Your task to perform on an android device: add a label to a message in the gmail app Image 0: 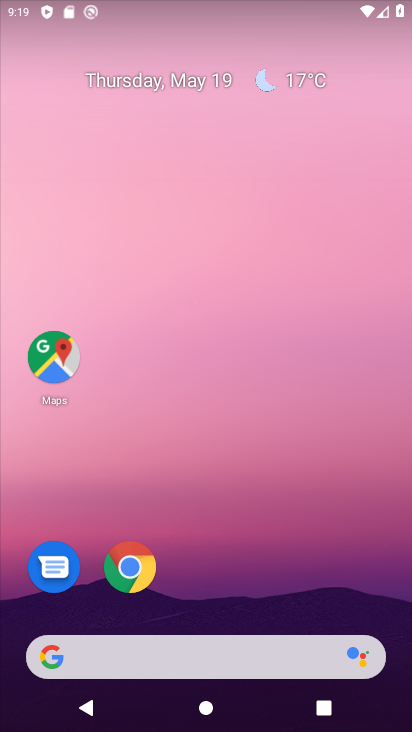
Step 0: click (405, 343)
Your task to perform on an android device: add a label to a message in the gmail app Image 1: 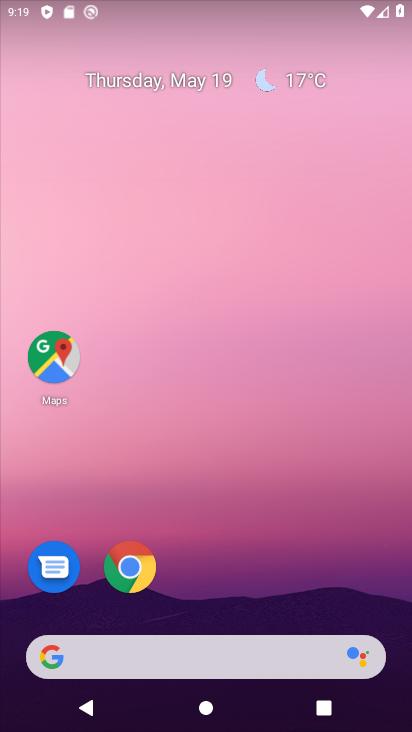
Step 1: drag from (284, 581) to (334, 168)
Your task to perform on an android device: add a label to a message in the gmail app Image 2: 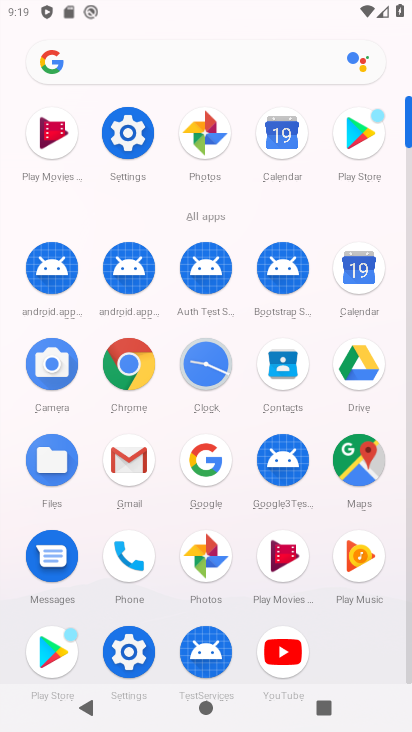
Step 2: click (137, 460)
Your task to perform on an android device: add a label to a message in the gmail app Image 3: 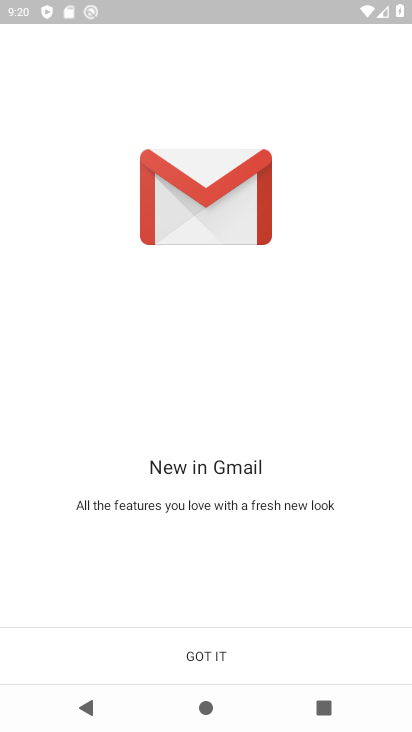
Step 3: click (222, 660)
Your task to perform on an android device: add a label to a message in the gmail app Image 4: 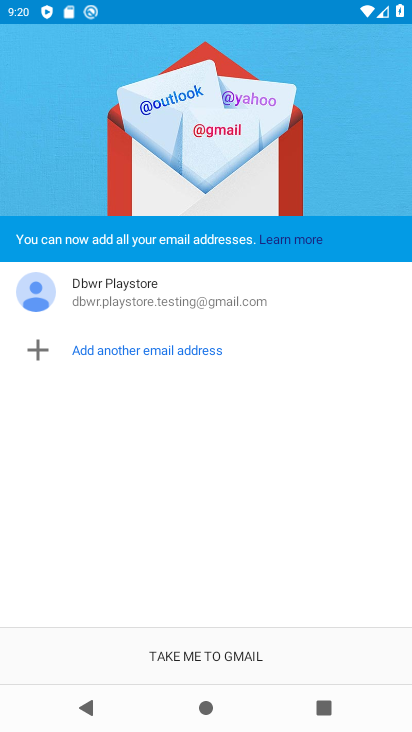
Step 4: click (222, 660)
Your task to perform on an android device: add a label to a message in the gmail app Image 5: 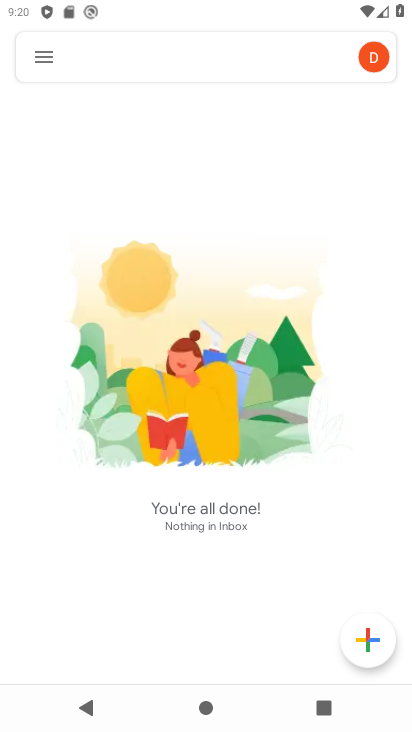
Step 5: click (54, 53)
Your task to perform on an android device: add a label to a message in the gmail app Image 6: 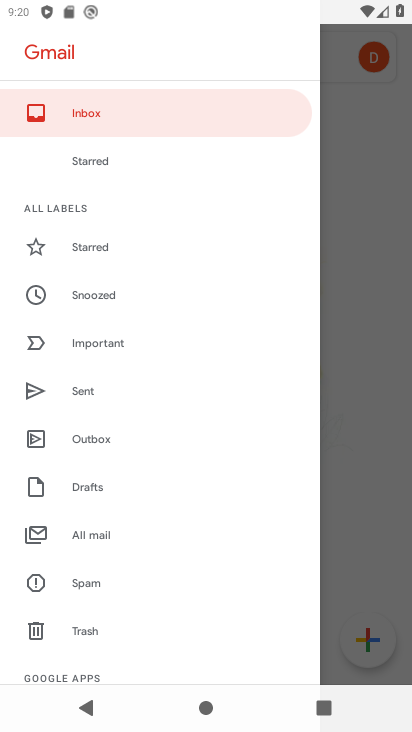
Step 6: click (110, 542)
Your task to perform on an android device: add a label to a message in the gmail app Image 7: 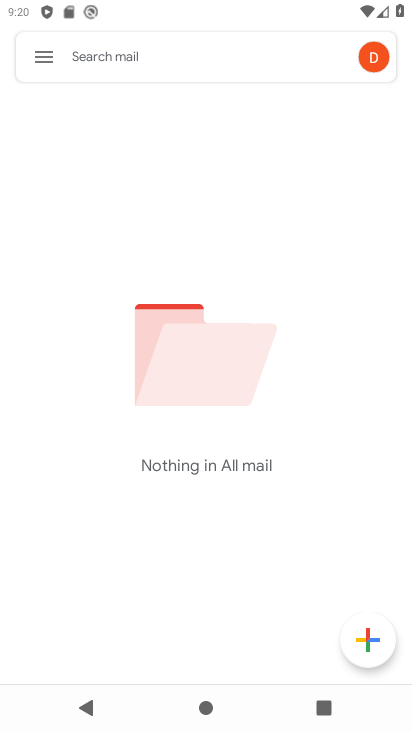
Step 7: task complete